Your task to perform on an android device: change the clock display to digital Image 0: 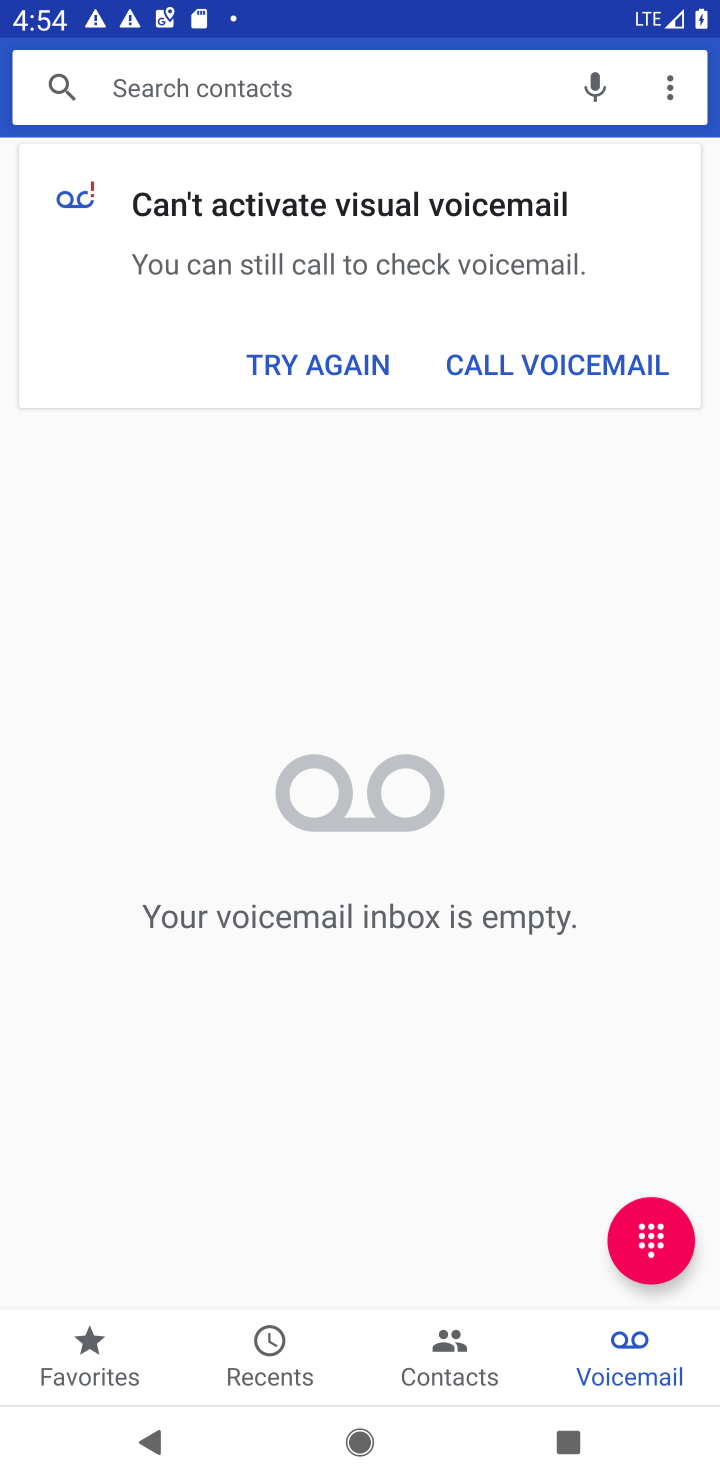
Step 0: press home button
Your task to perform on an android device: change the clock display to digital Image 1: 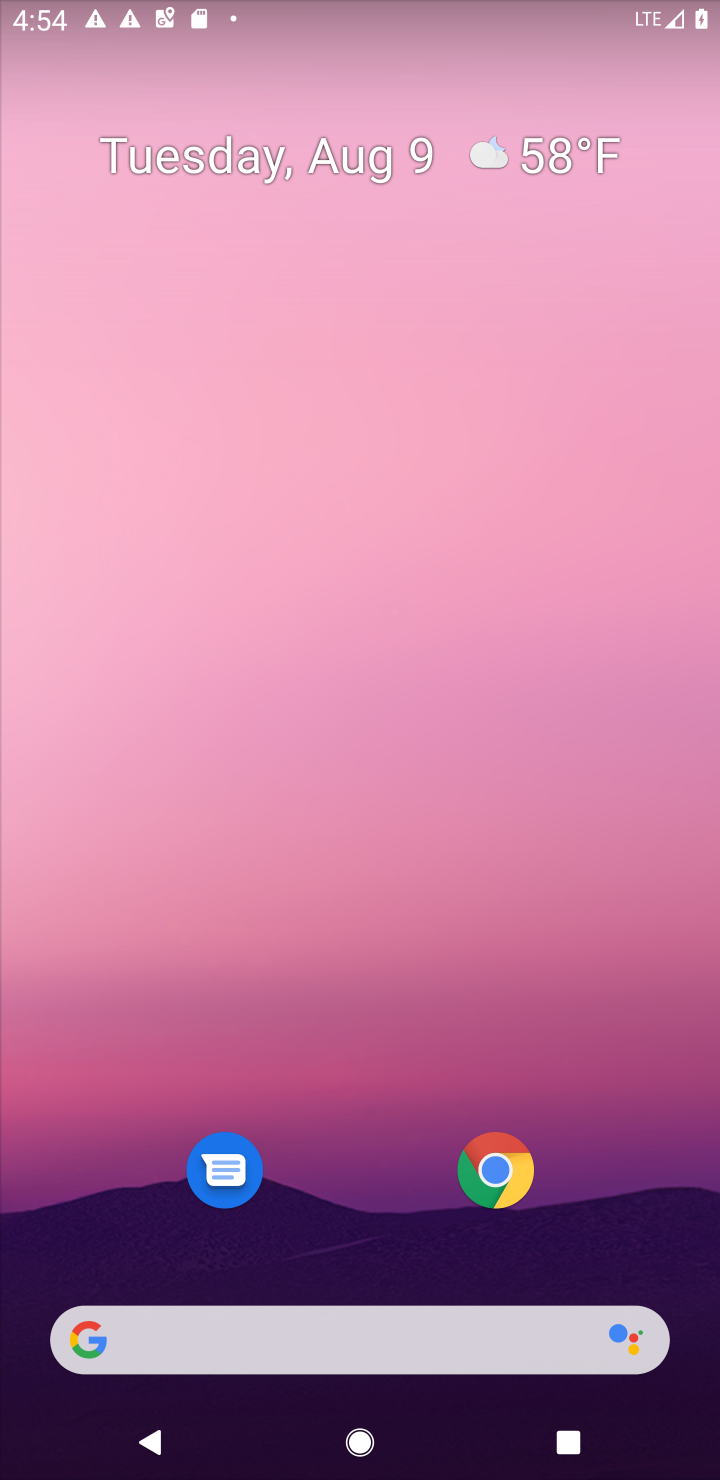
Step 1: drag from (351, 1124) to (569, 82)
Your task to perform on an android device: change the clock display to digital Image 2: 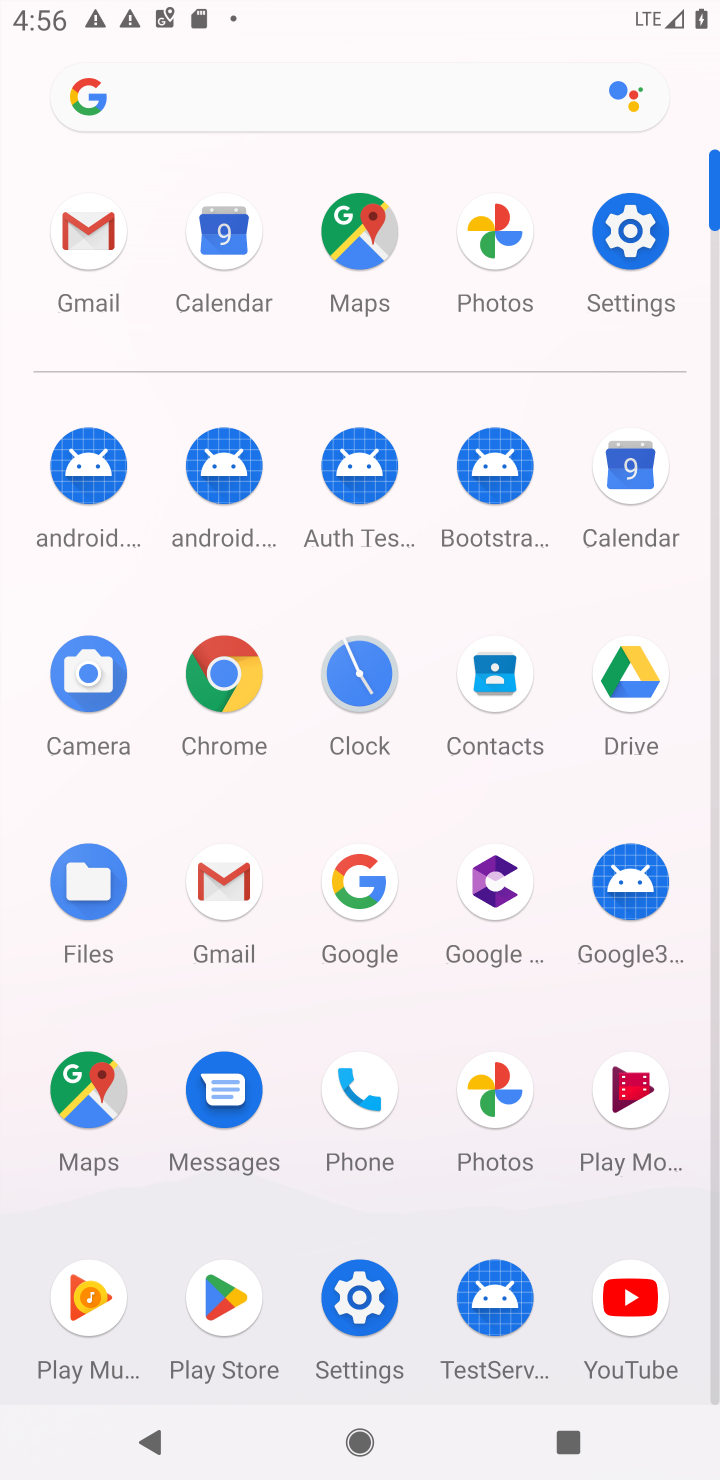
Step 2: click (347, 689)
Your task to perform on an android device: change the clock display to digital Image 3: 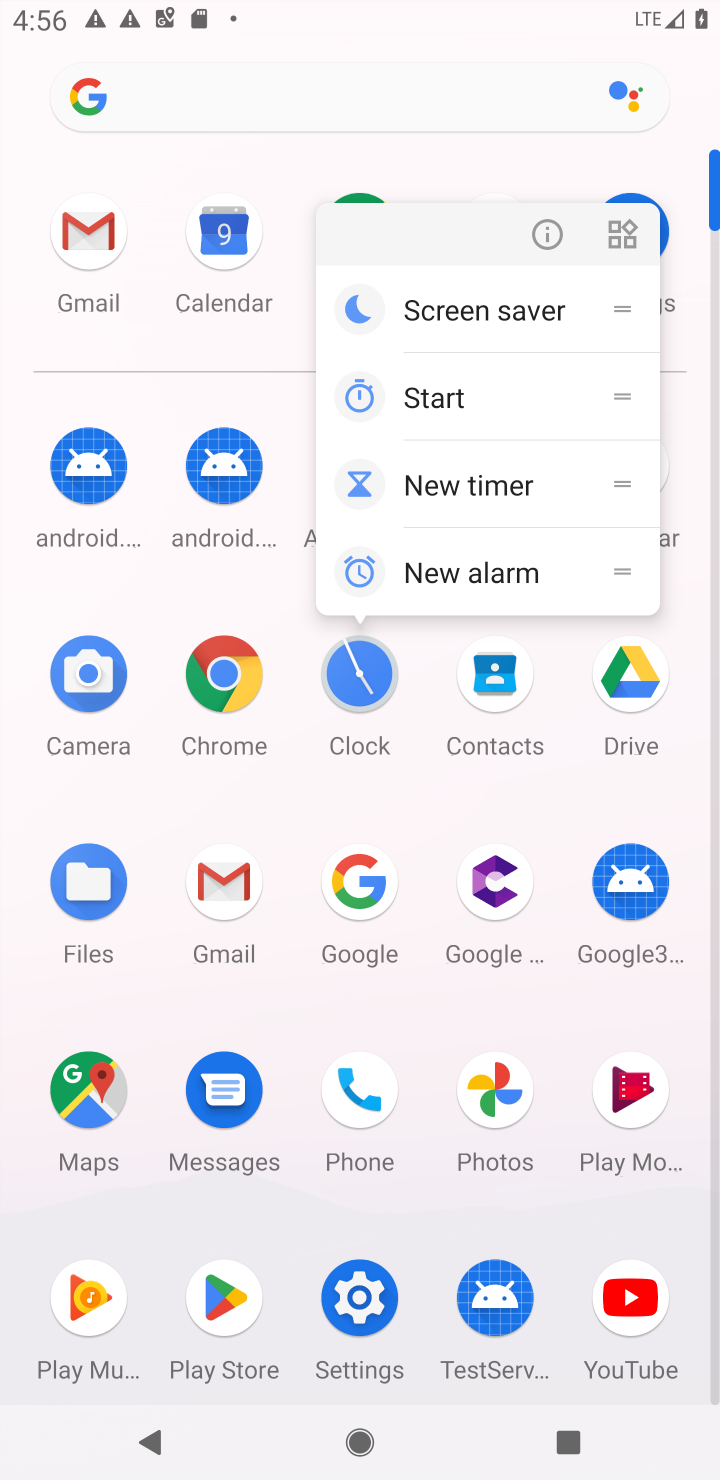
Step 3: click (361, 688)
Your task to perform on an android device: change the clock display to digital Image 4: 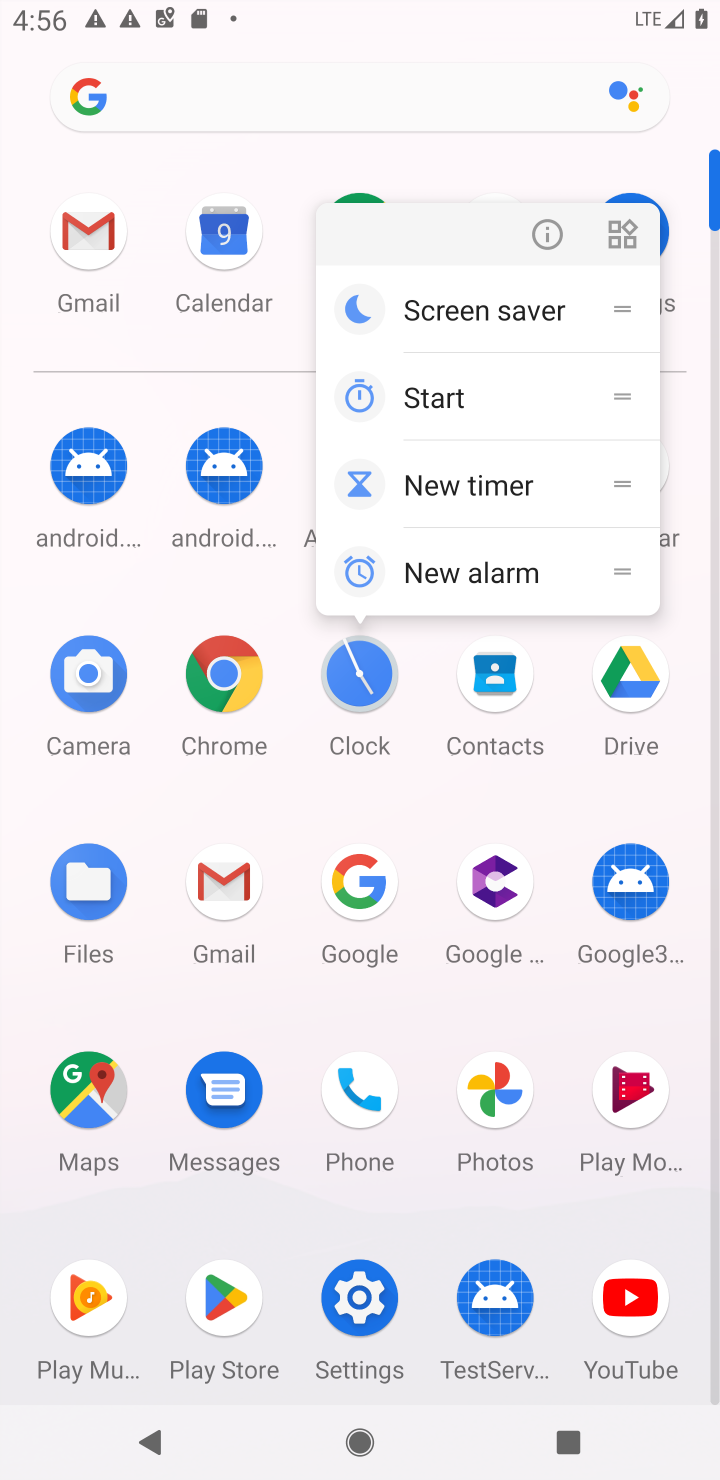
Step 4: click (366, 687)
Your task to perform on an android device: change the clock display to digital Image 5: 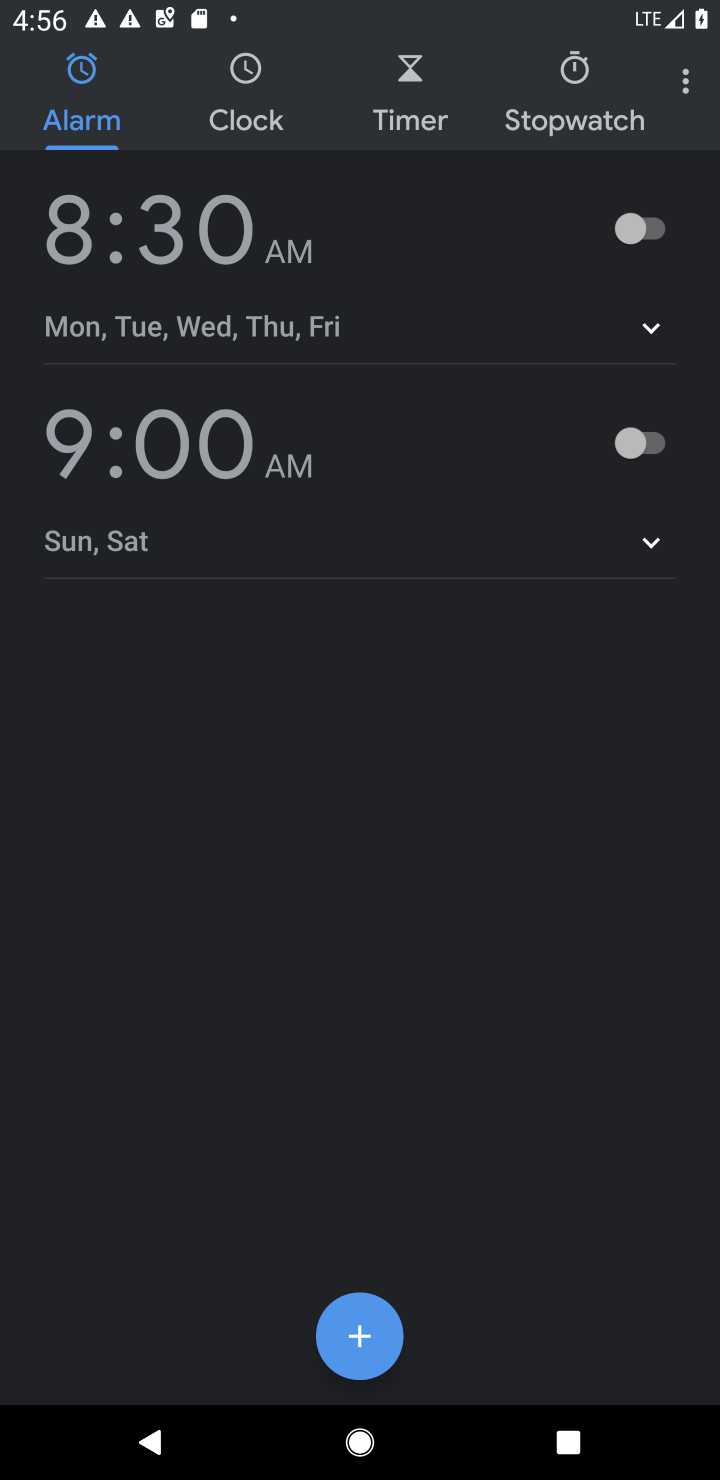
Step 5: click (682, 96)
Your task to perform on an android device: change the clock display to digital Image 6: 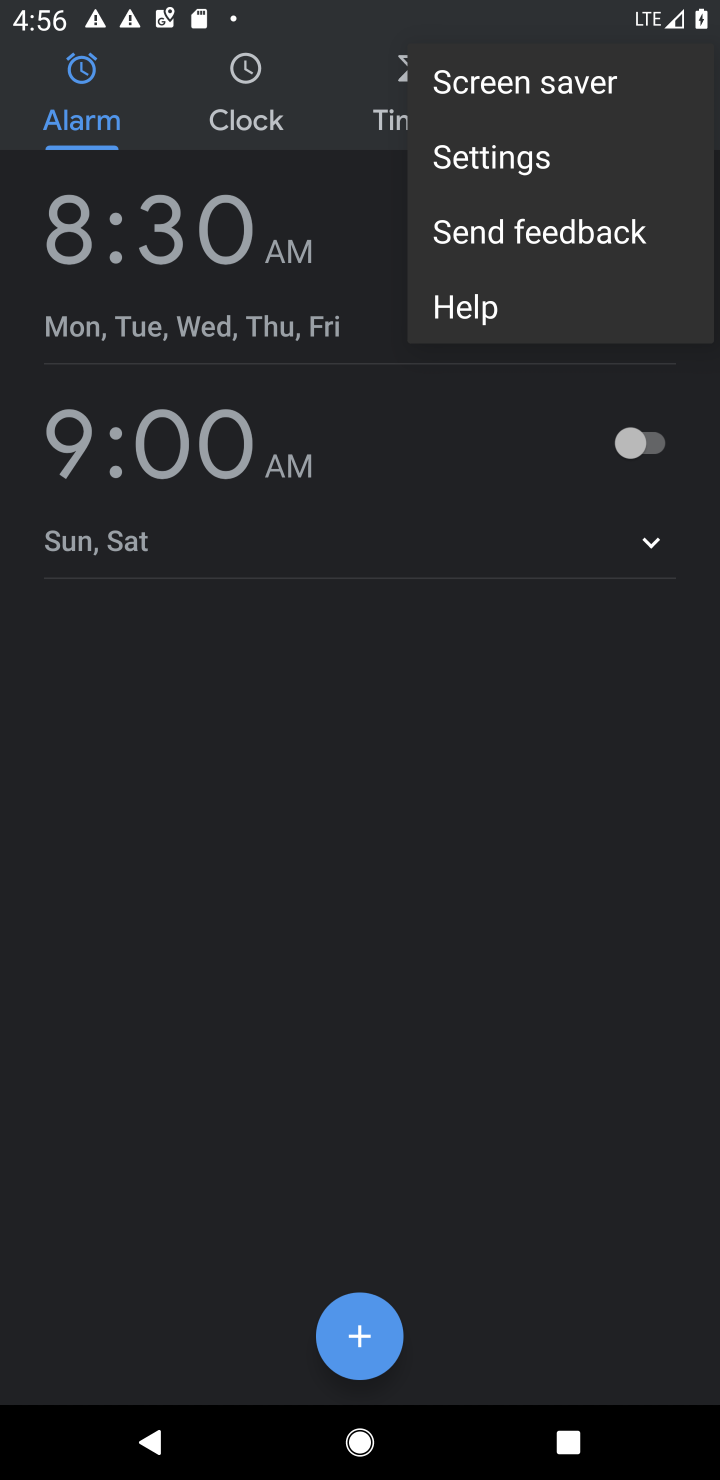
Step 6: click (552, 151)
Your task to perform on an android device: change the clock display to digital Image 7: 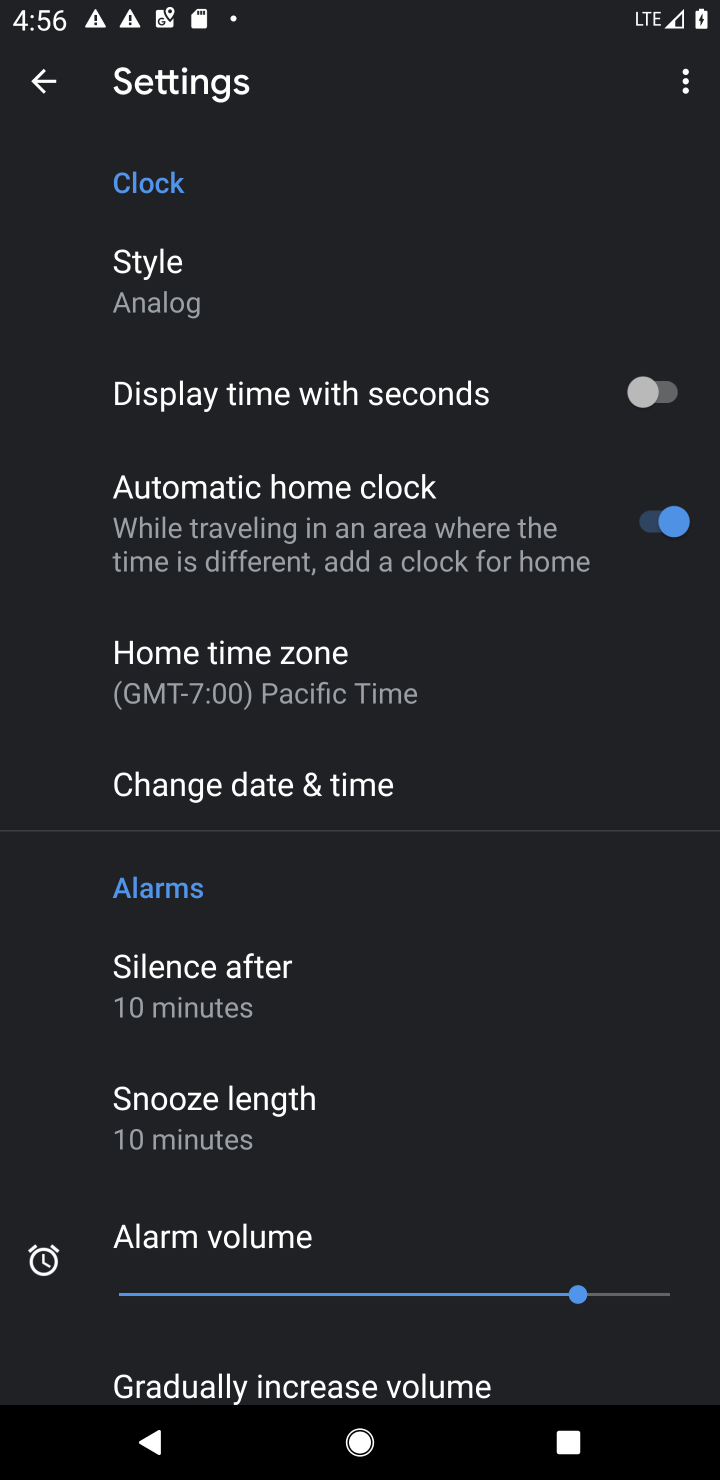
Step 7: click (287, 298)
Your task to perform on an android device: change the clock display to digital Image 8: 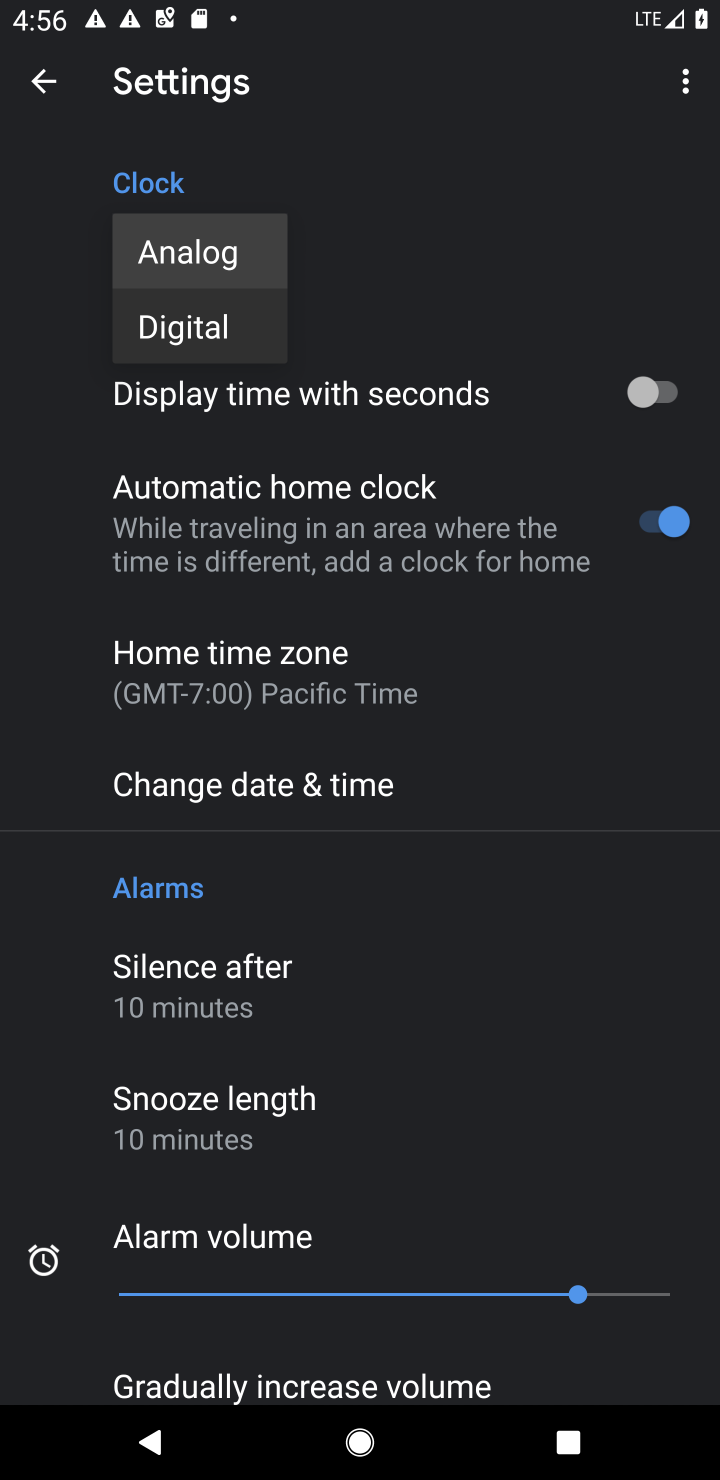
Step 8: click (195, 342)
Your task to perform on an android device: change the clock display to digital Image 9: 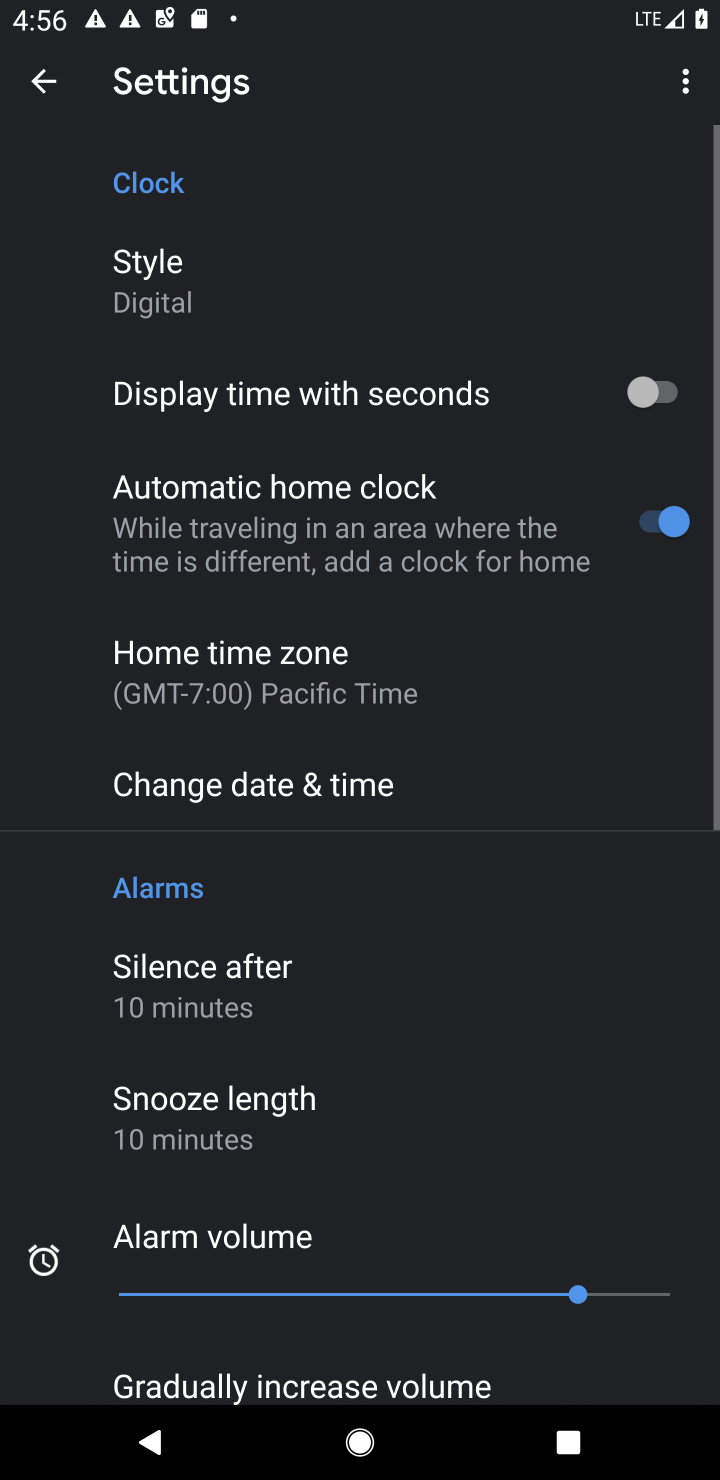
Step 9: task complete